Your task to perform on an android device: turn off improve location accuracy Image 0: 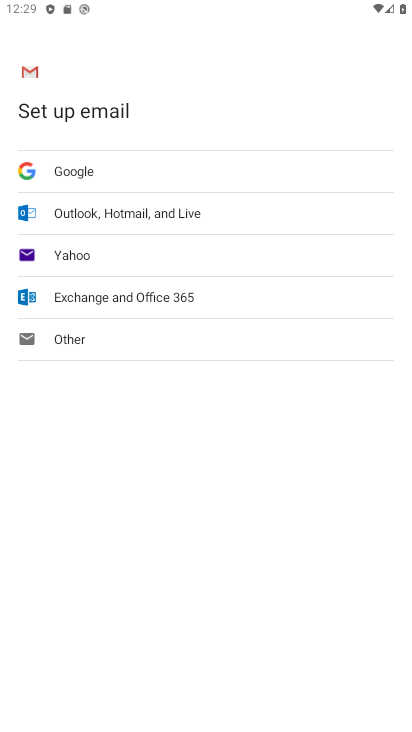
Step 0: press home button
Your task to perform on an android device: turn off improve location accuracy Image 1: 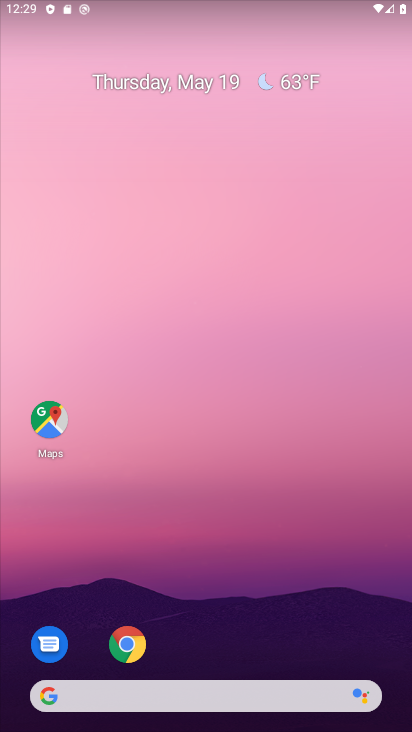
Step 1: drag from (385, 586) to (346, 209)
Your task to perform on an android device: turn off improve location accuracy Image 2: 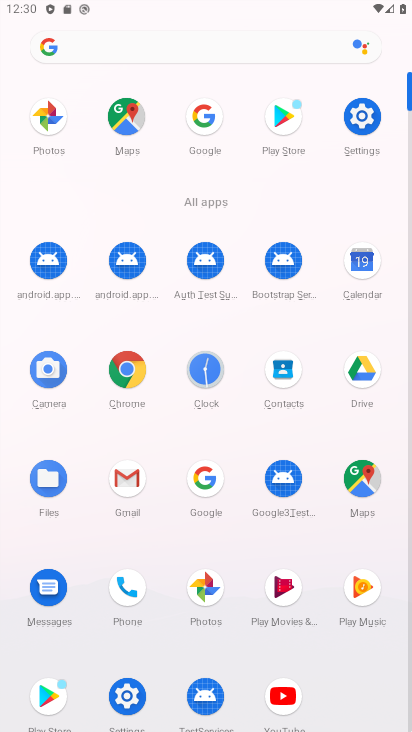
Step 2: click (365, 114)
Your task to perform on an android device: turn off improve location accuracy Image 3: 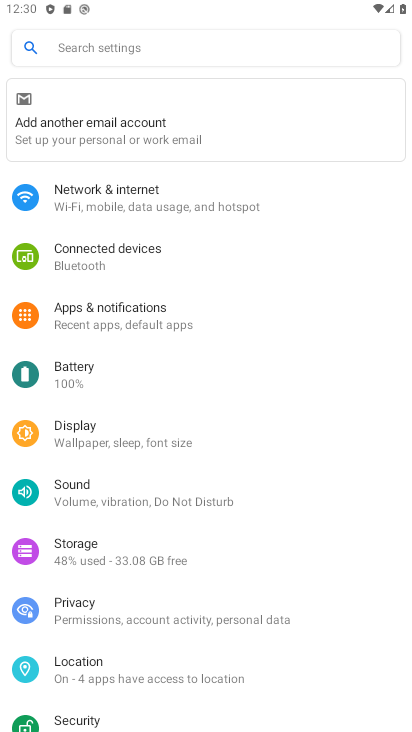
Step 3: click (79, 671)
Your task to perform on an android device: turn off improve location accuracy Image 4: 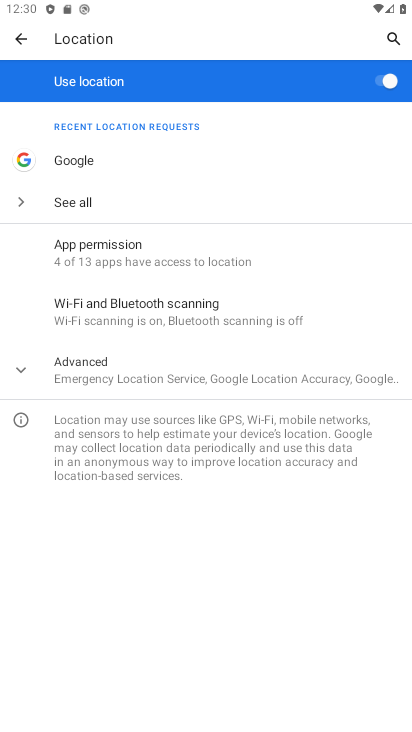
Step 4: click (23, 370)
Your task to perform on an android device: turn off improve location accuracy Image 5: 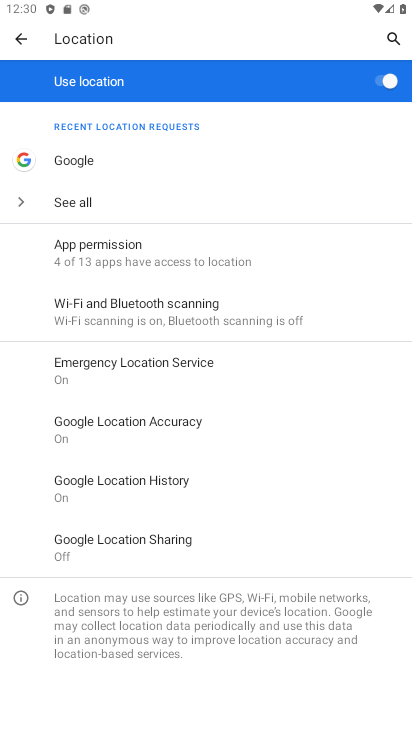
Step 5: click (113, 423)
Your task to perform on an android device: turn off improve location accuracy Image 6: 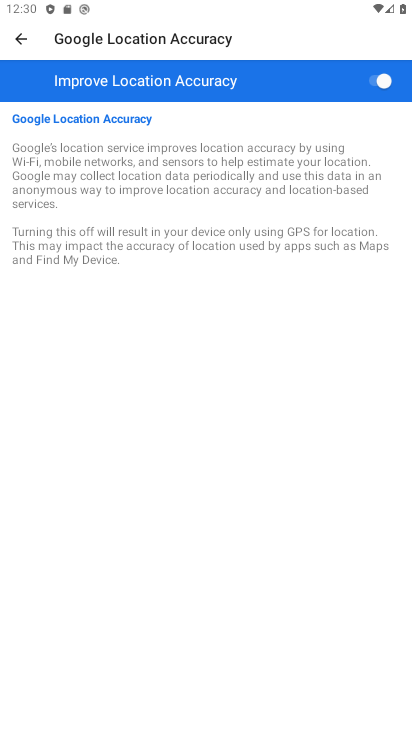
Step 6: click (374, 78)
Your task to perform on an android device: turn off improve location accuracy Image 7: 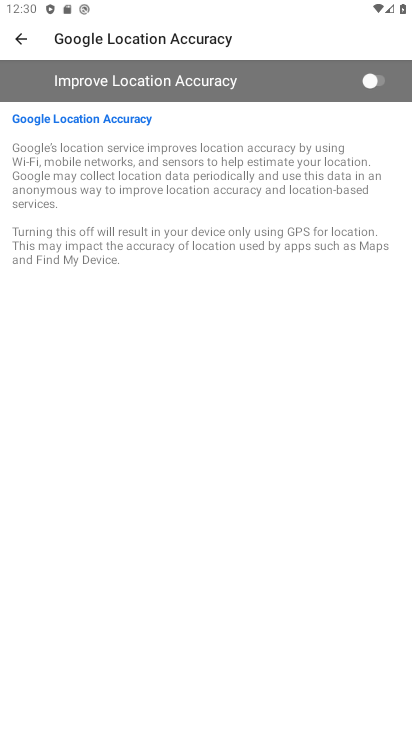
Step 7: task complete